Your task to perform on an android device: turn notification dots off Image 0: 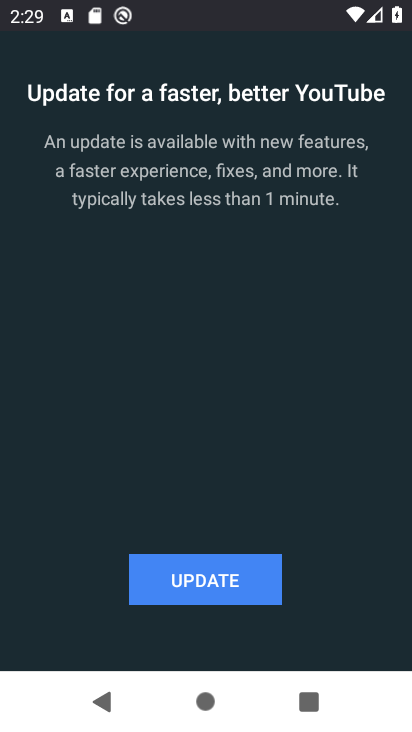
Step 0: press home button
Your task to perform on an android device: turn notification dots off Image 1: 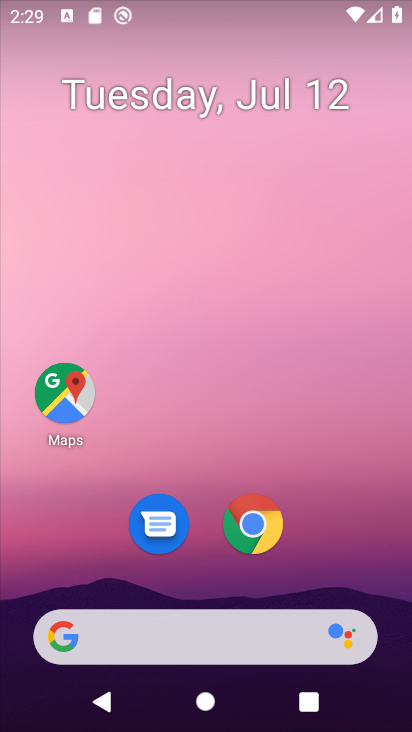
Step 1: drag from (344, 564) to (294, 41)
Your task to perform on an android device: turn notification dots off Image 2: 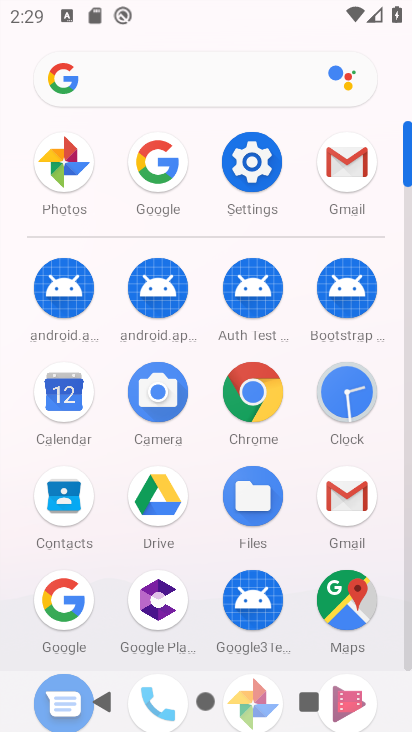
Step 2: click (259, 169)
Your task to perform on an android device: turn notification dots off Image 3: 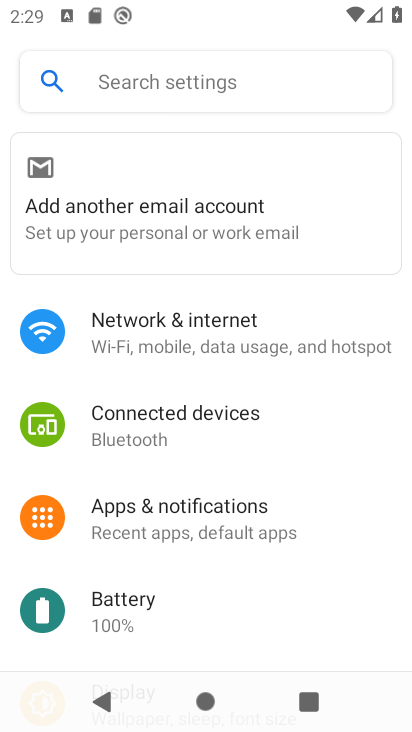
Step 3: click (230, 519)
Your task to perform on an android device: turn notification dots off Image 4: 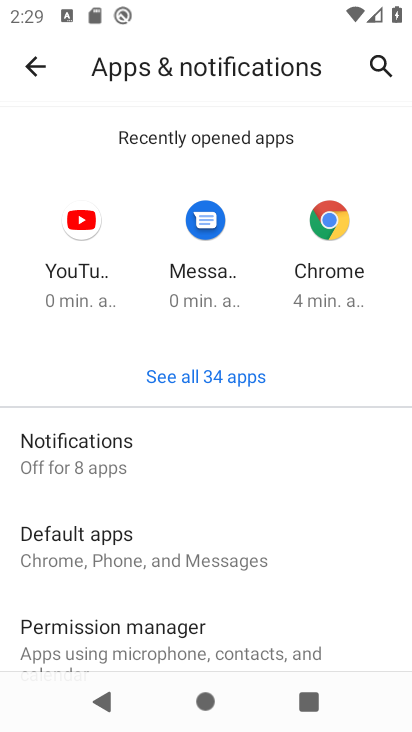
Step 4: click (93, 452)
Your task to perform on an android device: turn notification dots off Image 5: 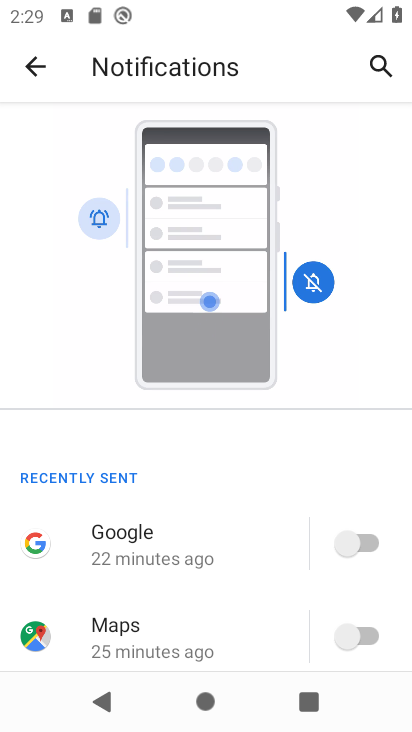
Step 5: drag from (284, 526) to (294, 24)
Your task to perform on an android device: turn notification dots off Image 6: 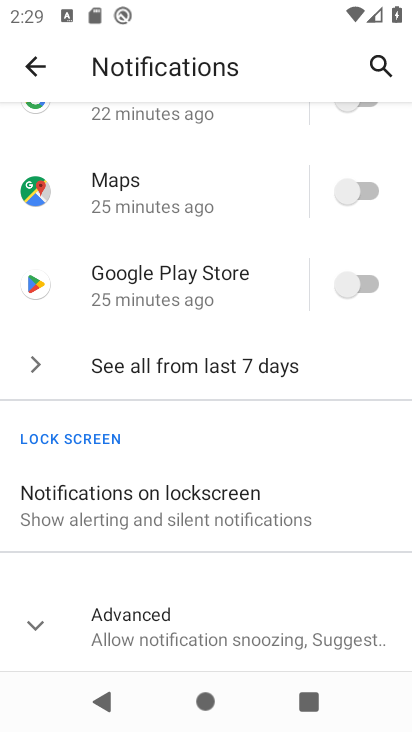
Step 6: click (37, 622)
Your task to perform on an android device: turn notification dots off Image 7: 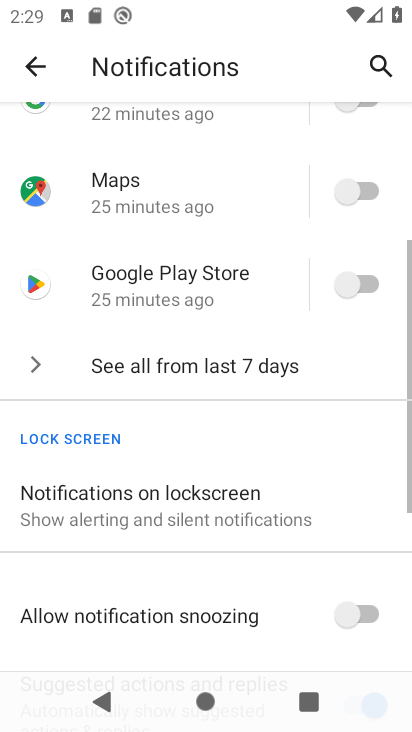
Step 7: task complete